Your task to perform on an android device: What's on my calendar tomorrow? Image 0: 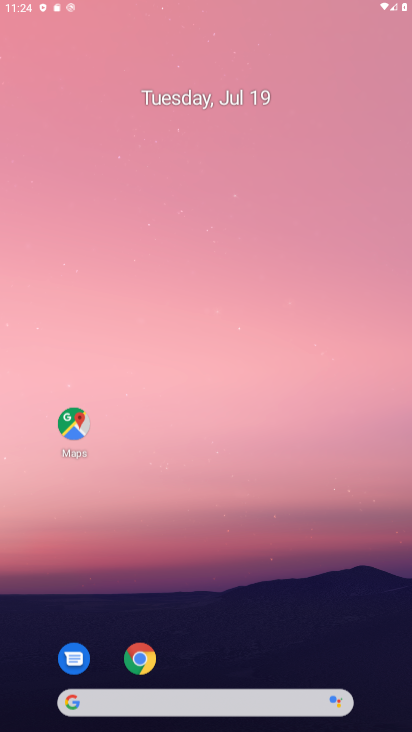
Step 0: press home button
Your task to perform on an android device: What's on my calendar tomorrow? Image 1: 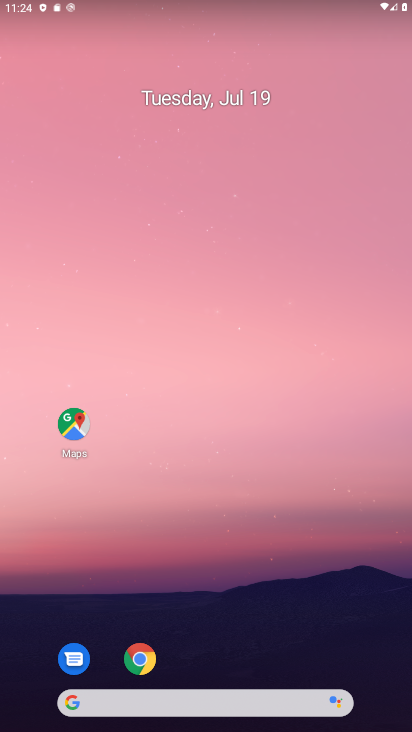
Step 1: drag from (216, 667) to (203, 4)
Your task to perform on an android device: What's on my calendar tomorrow? Image 2: 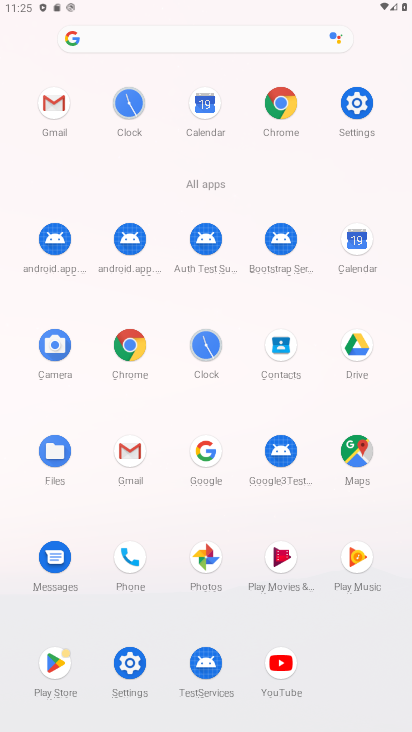
Step 2: click (357, 235)
Your task to perform on an android device: What's on my calendar tomorrow? Image 3: 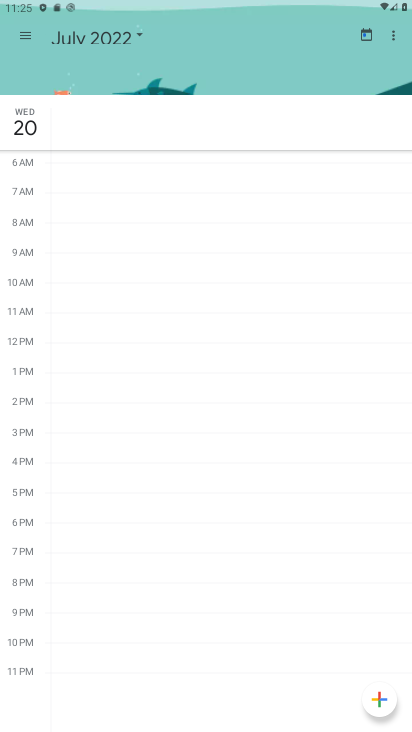
Step 3: task complete